Your task to perform on an android device: uninstall "LinkedIn" Image 0: 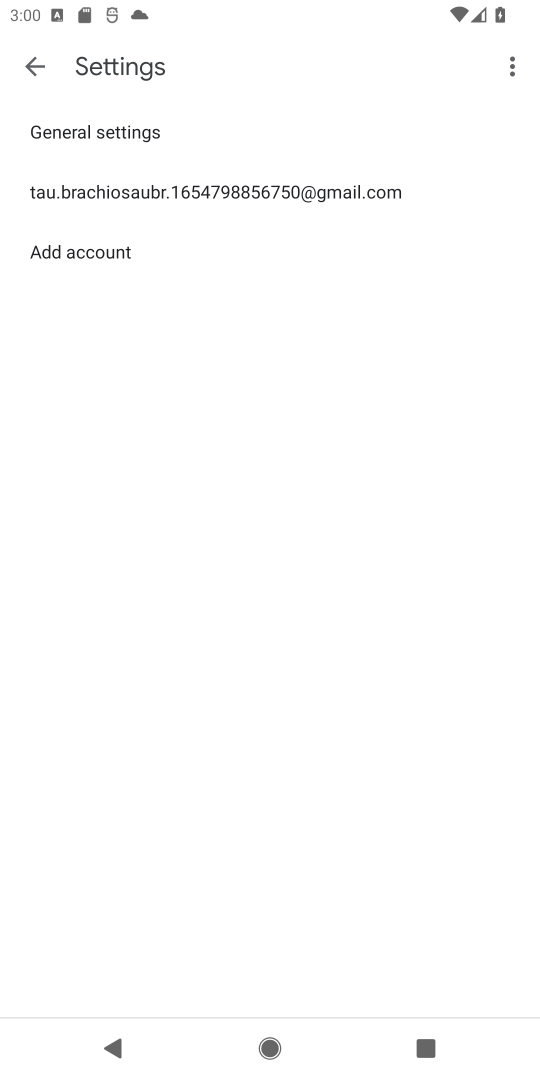
Step 0: press back button
Your task to perform on an android device: uninstall "LinkedIn" Image 1: 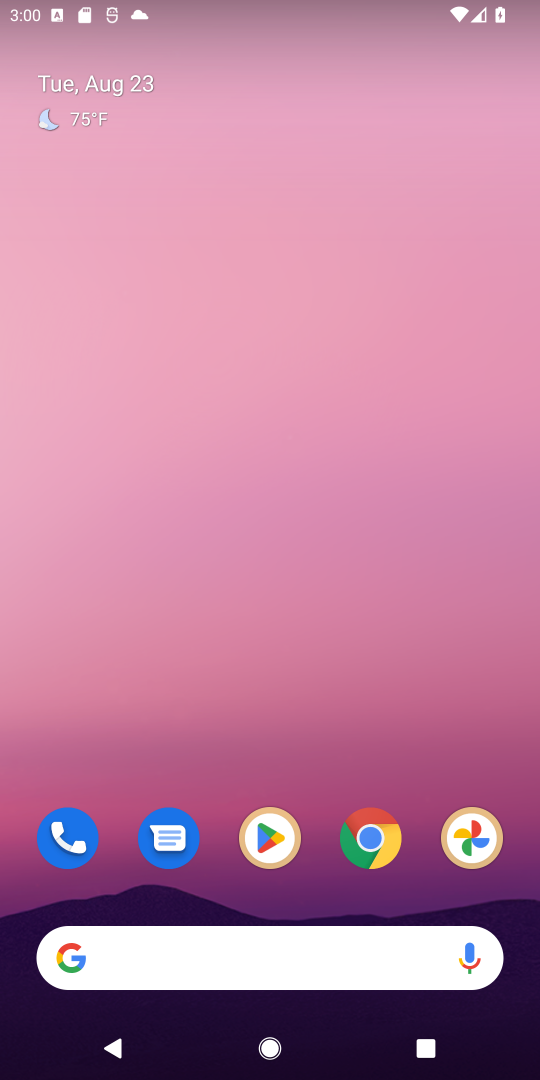
Step 1: press home button
Your task to perform on an android device: uninstall "LinkedIn" Image 2: 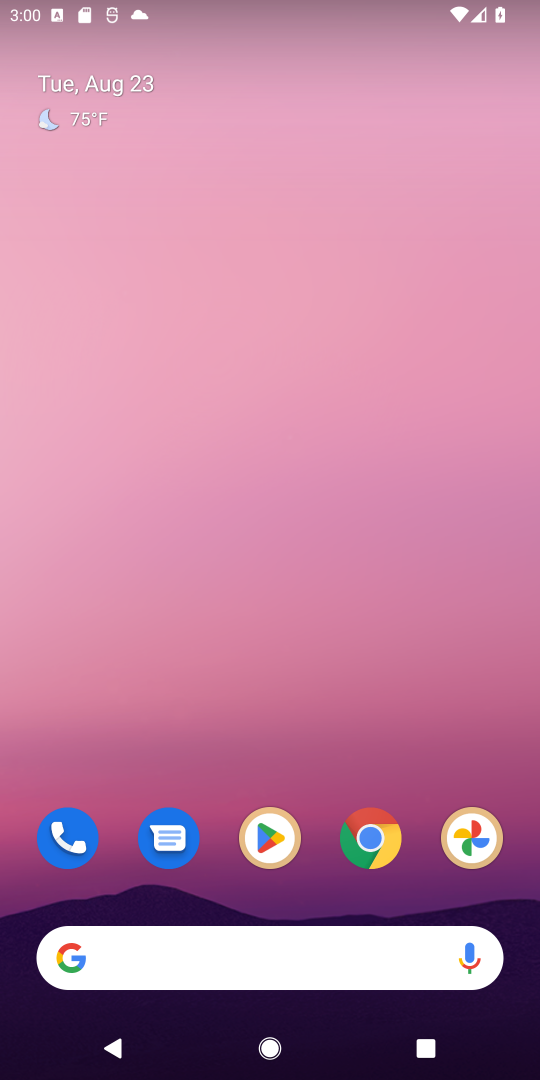
Step 2: click (267, 839)
Your task to perform on an android device: uninstall "LinkedIn" Image 3: 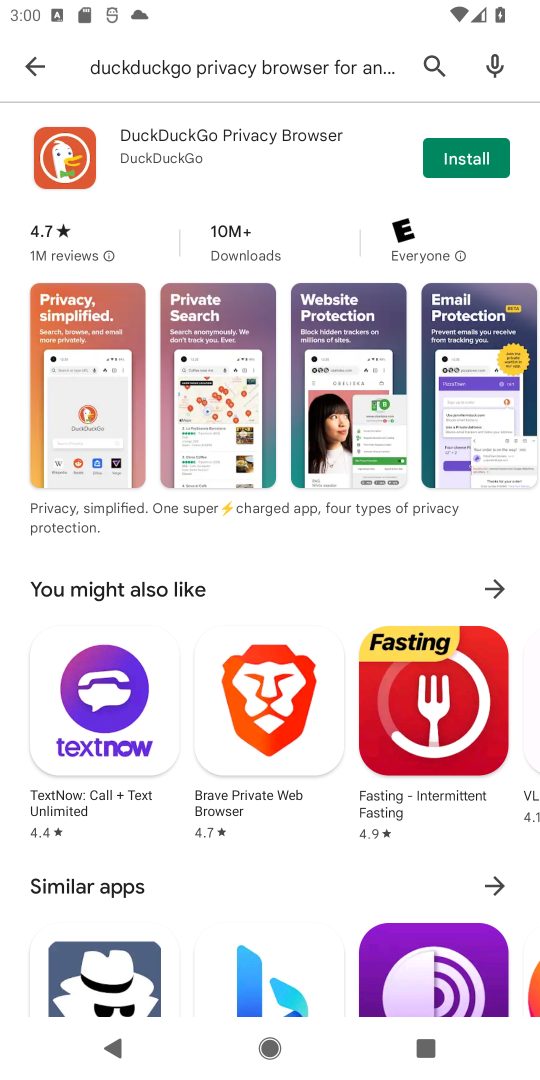
Step 3: click (20, 68)
Your task to perform on an android device: uninstall "LinkedIn" Image 4: 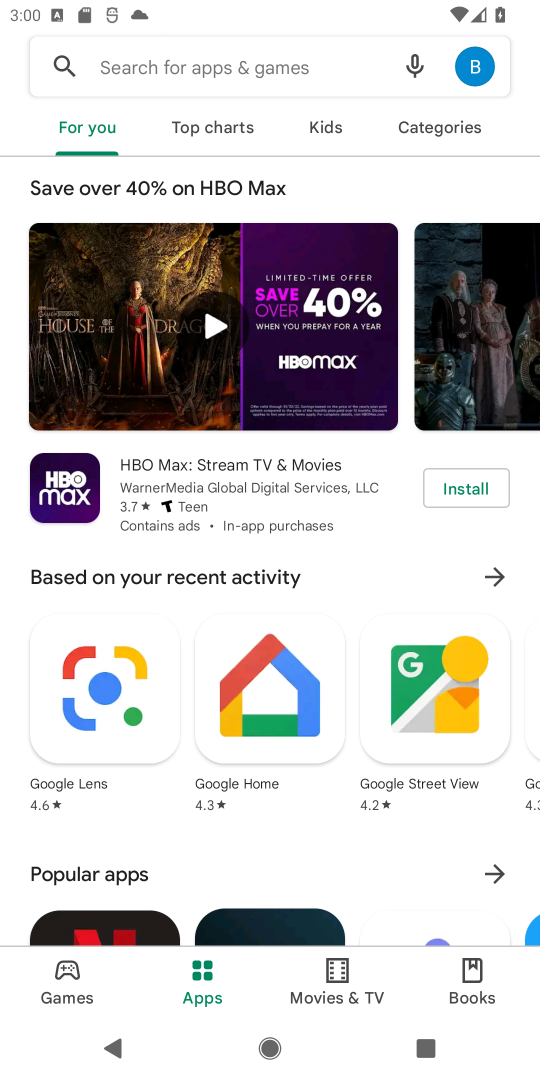
Step 4: click (114, 58)
Your task to perform on an android device: uninstall "LinkedIn" Image 5: 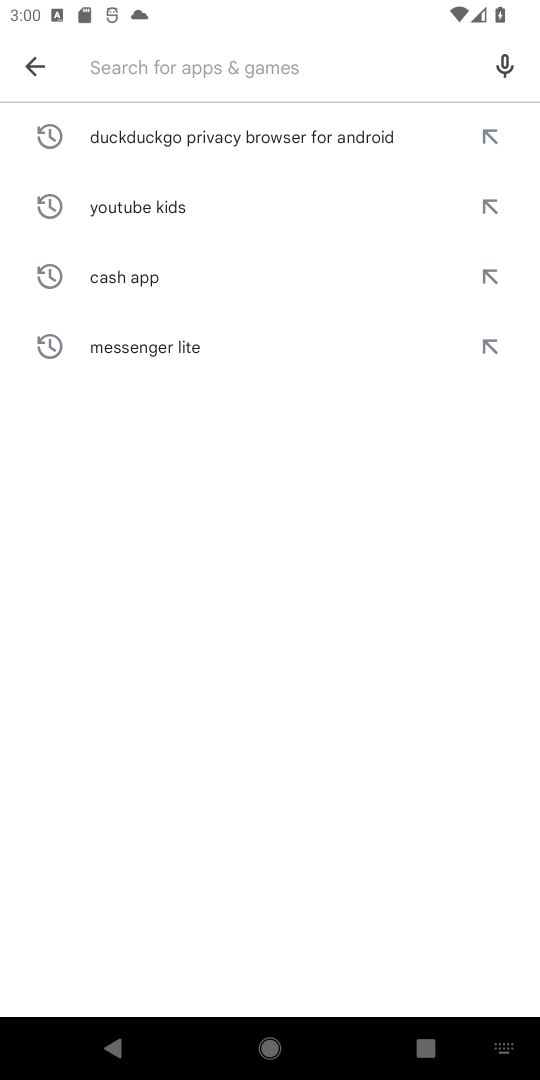
Step 5: type "LinkedIn"
Your task to perform on an android device: uninstall "LinkedIn" Image 6: 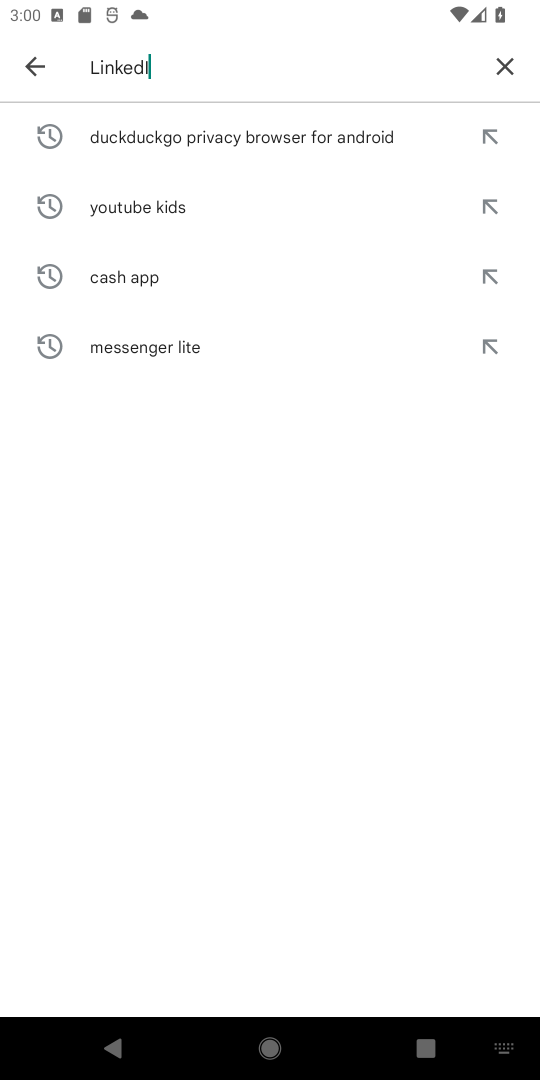
Step 6: type ""
Your task to perform on an android device: uninstall "LinkedIn" Image 7: 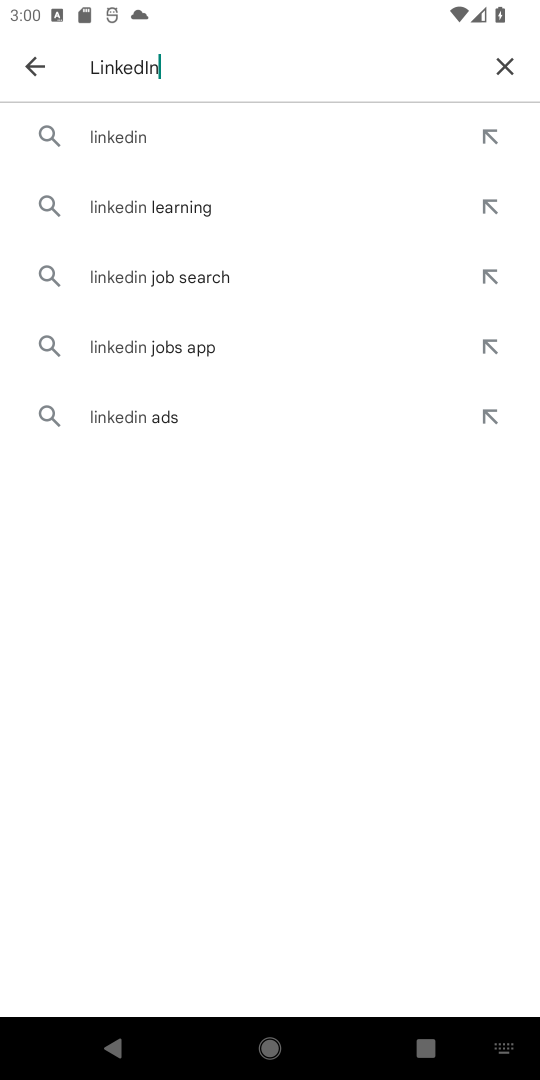
Step 7: click (84, 142)
Your task to perform on an android device: uninstall "LinkedIn" Image 8: 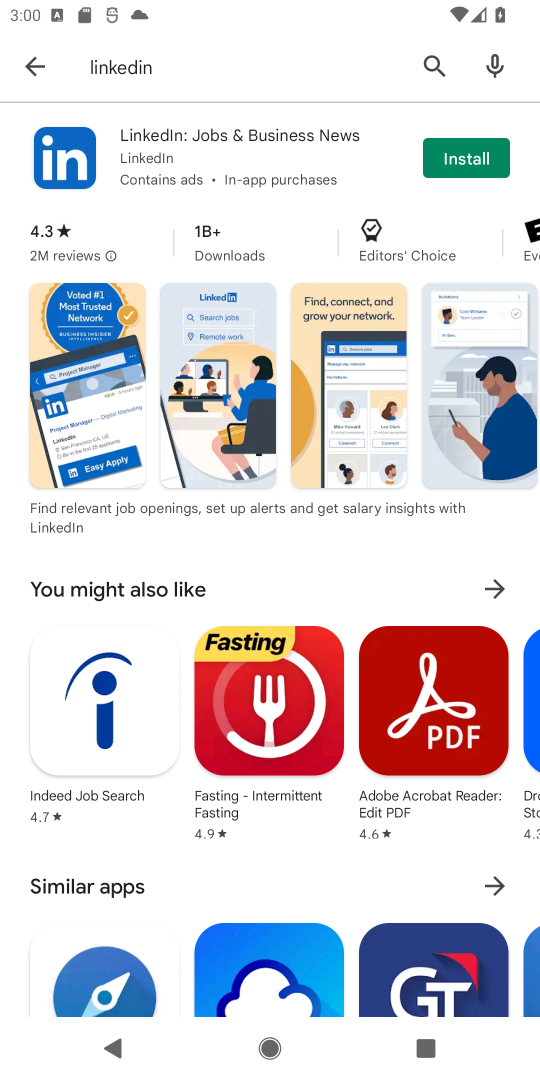
Step 8: task complete